Your task to perform on an android device: Go to Google Image 0: 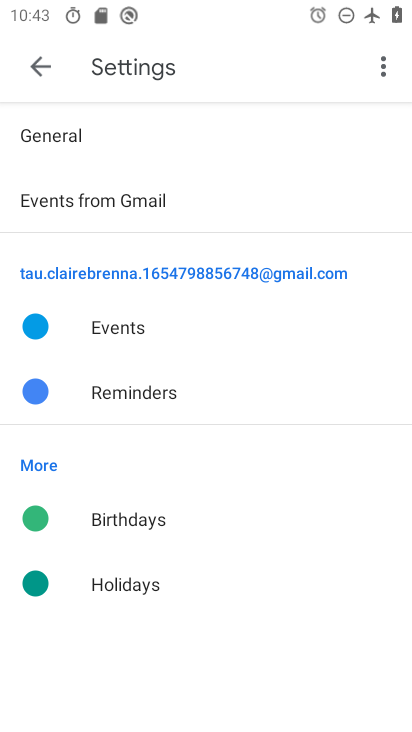
Step 0: press home button
Your task to perform on an android device: Go to Google Image 1: 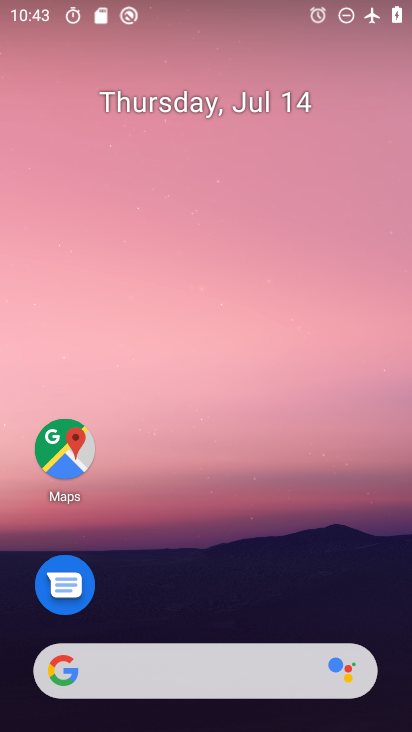
Step 1: click (242, 690)
Your task to perform on an android device: Go to Google Image 2: 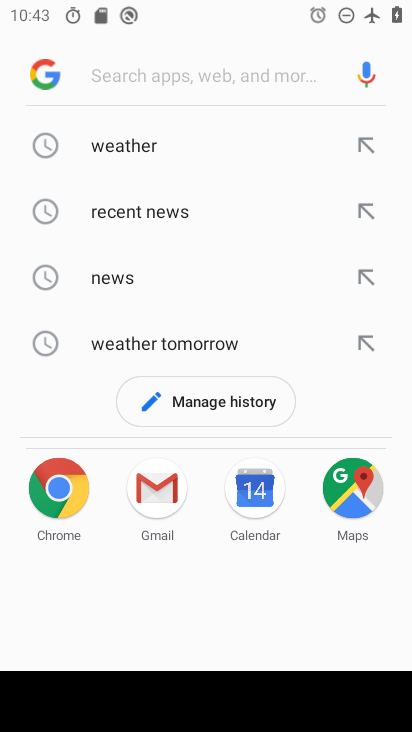
Step 2: task complete